Your task to perform on an android device: turn smart compose on in the gmail app Image 0: 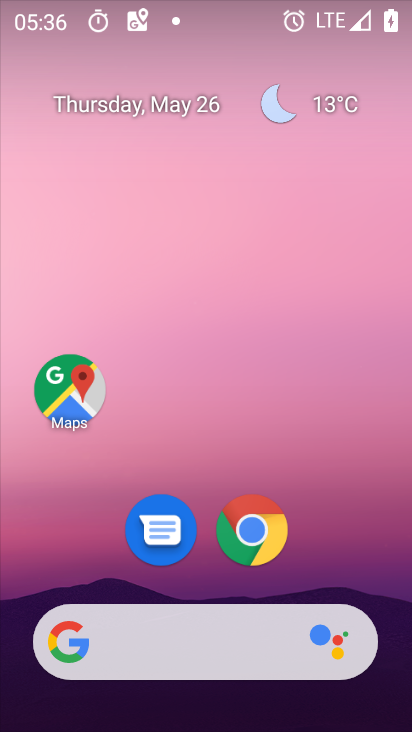
Step 0: drag from (365, 573) to (387, 6)
Your task to perform on an android device: turn smart compose on in the gmail app Image 1: 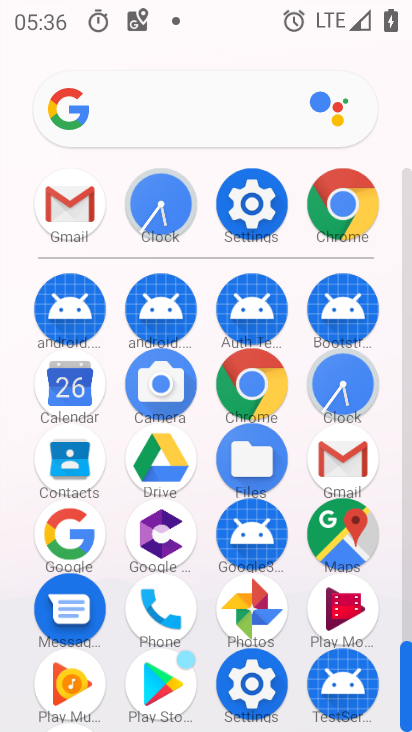
Step 1: click (336, 466)
Your task to perform on an android device: turn smart compose on in the gmail app Image 2: 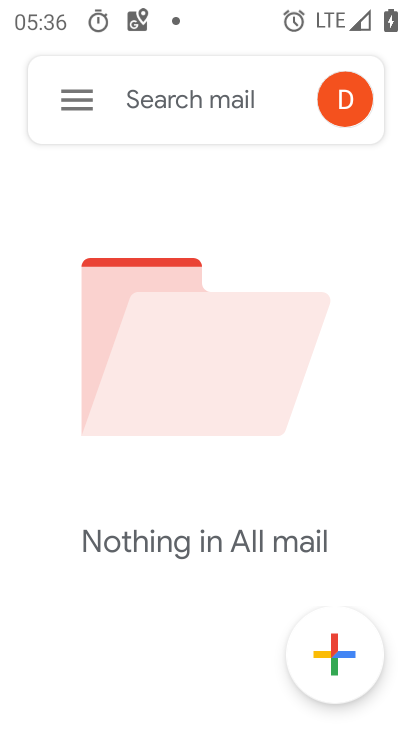
Step 2: click (78, 91)
Your task to perform on an android device: turn smart compose on in the gmail app Image 3: 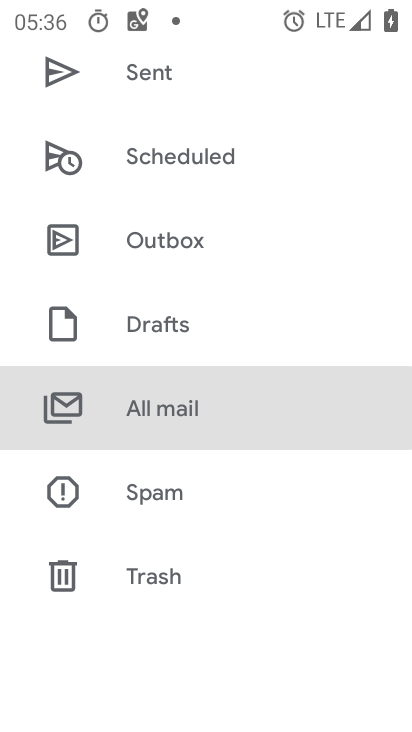
Step 3: drag from (211, 537) to (237, 67)
Your task to perform on an android device: turn smart compose on in the gmail app Image 4: 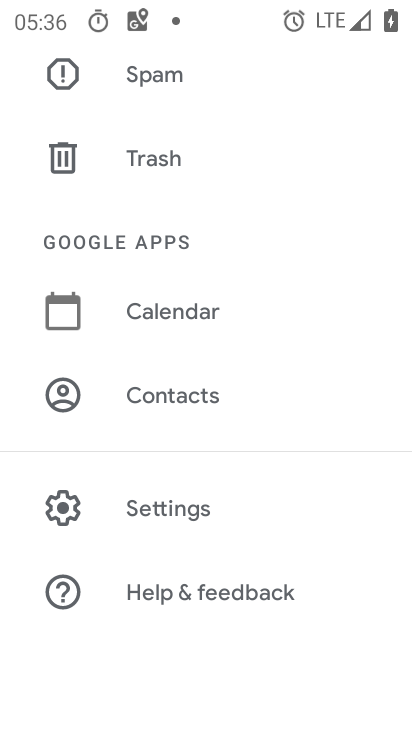
Step 4: click (204, 514)
Your task to perform on an android device: turn smart compose on in the gmail app Image 5: 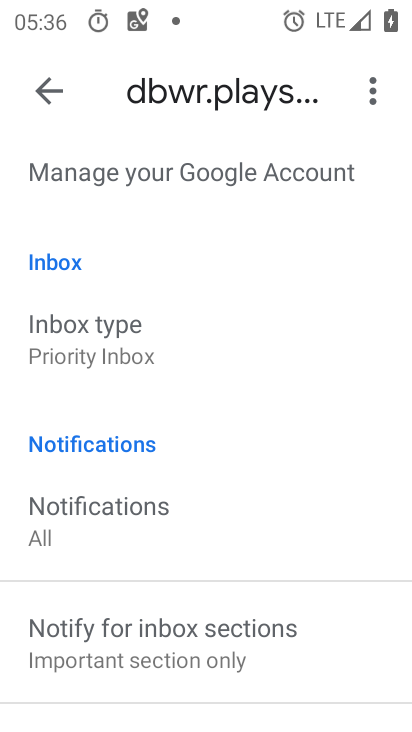
Step 5: task complete